Your task to perform on an android device: Search for vegetarian restaurants on Maps Image 0: 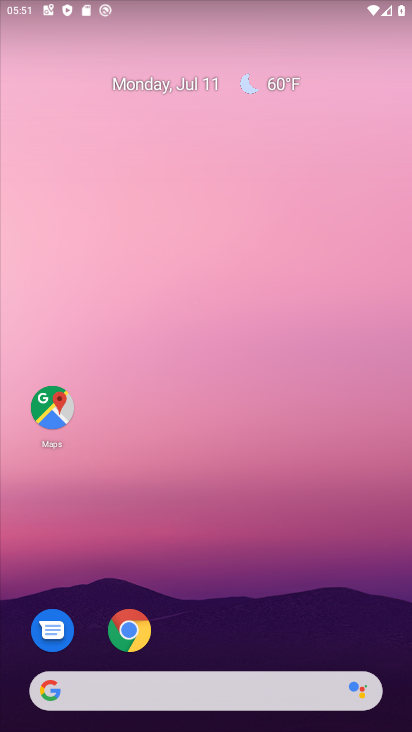
Step 0: click (43, 408)
Your task to perform on an android device: Search for vegetarian restaurants on Maps Image 1: 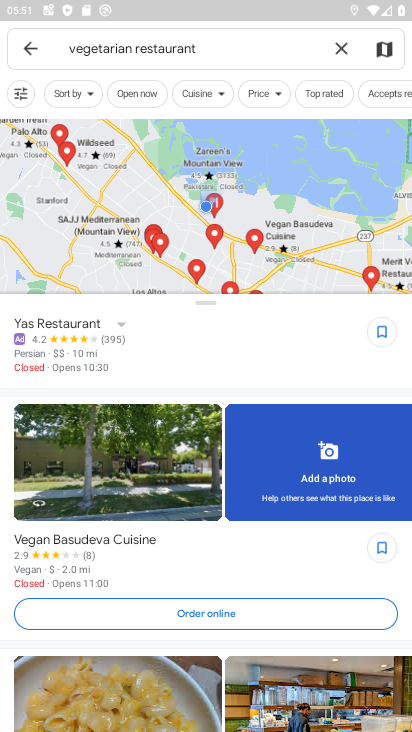
Step 1: task complete